Your task to perform on an android device: Go to Yahoo.com Image 0: 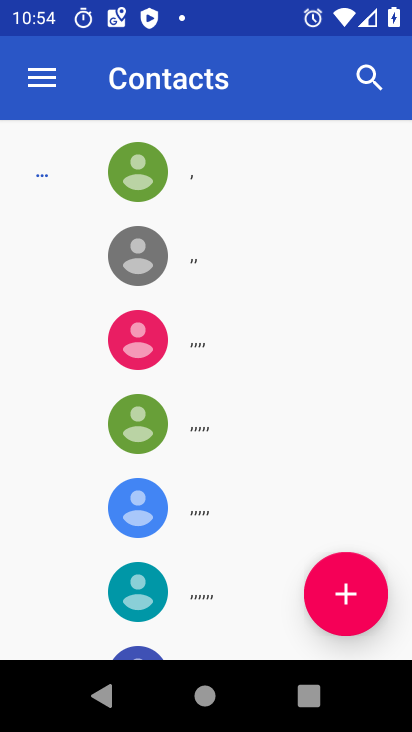
Step 0: press home button
Your task to perform on an android device: Go to Yahoo.com Image 1: 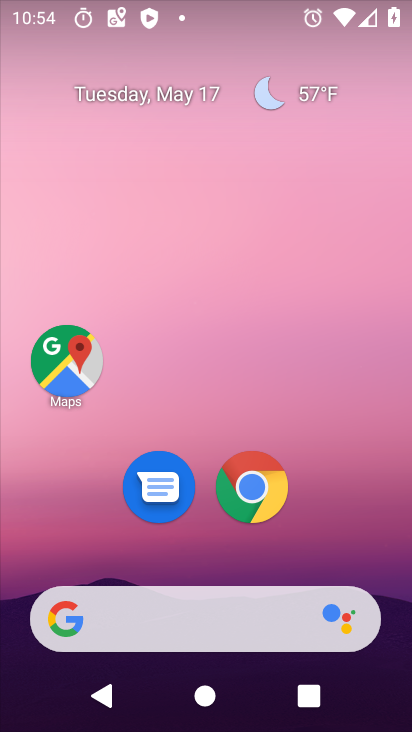
Step 1: click (253, 499)
Your task to perform on an android device: Go to Yahoo.com Image 2: 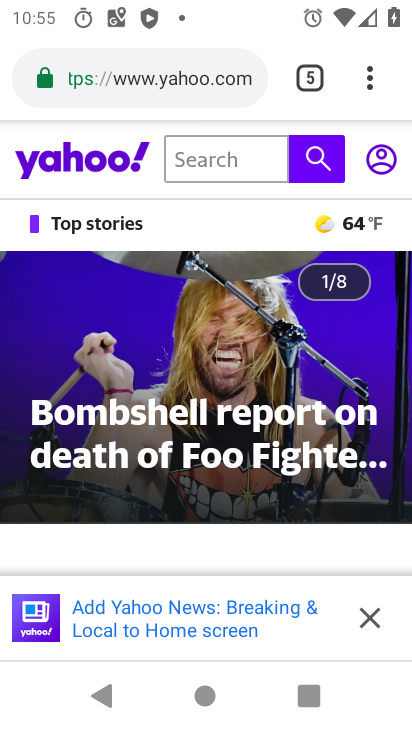
Step 2: task complete